Your task to perform on an android device: turn on bluetooth scan Image 0: 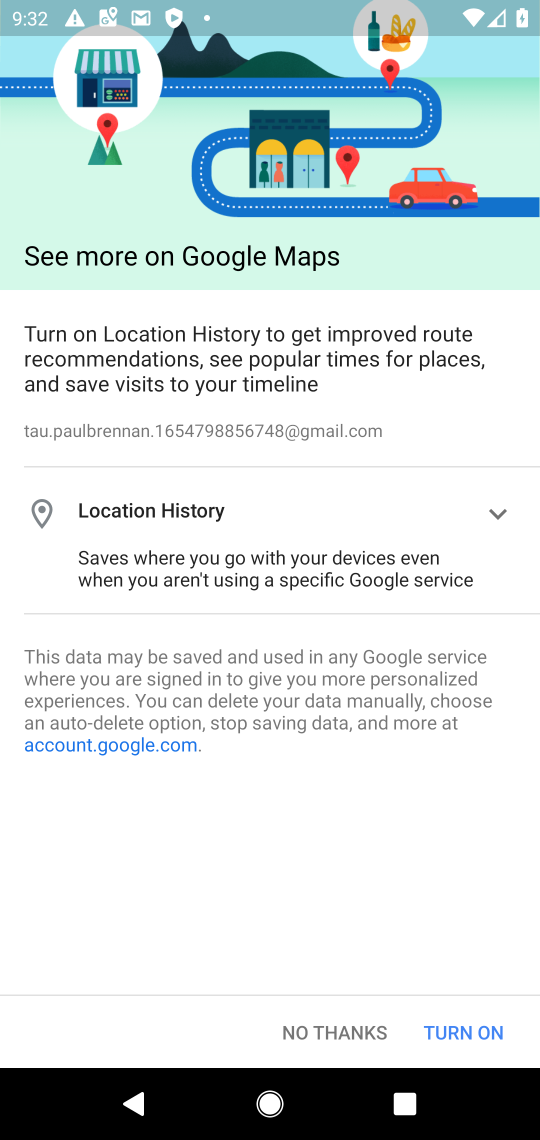
Step 0: click (312, 1032)
Your task to perform on an android device: turn on bluetooth scan Image 1: 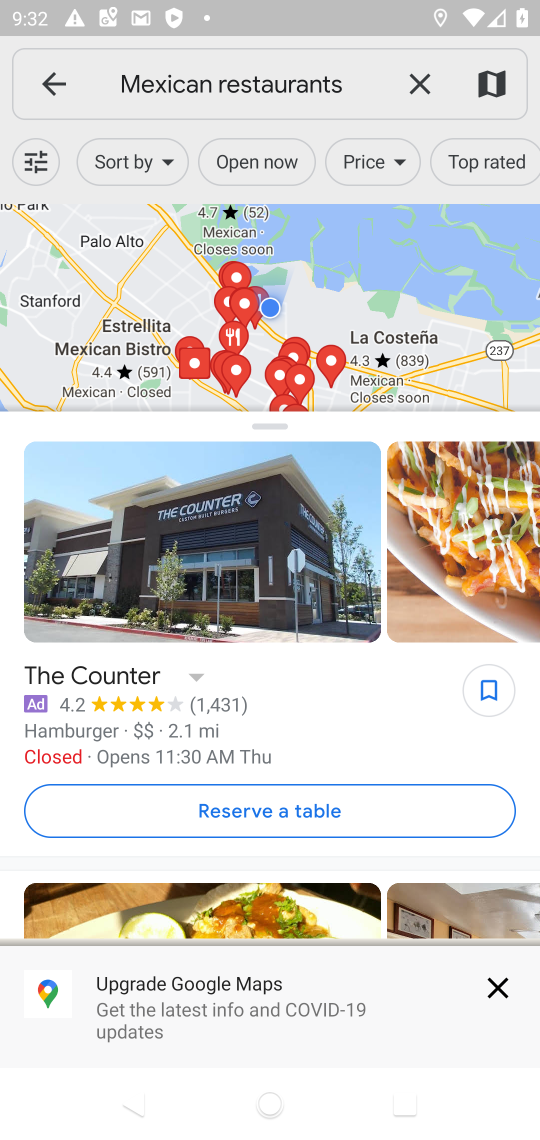
Step 1: press home button
Your task to perform on an android device: turn on bluetooth scan Image 2: 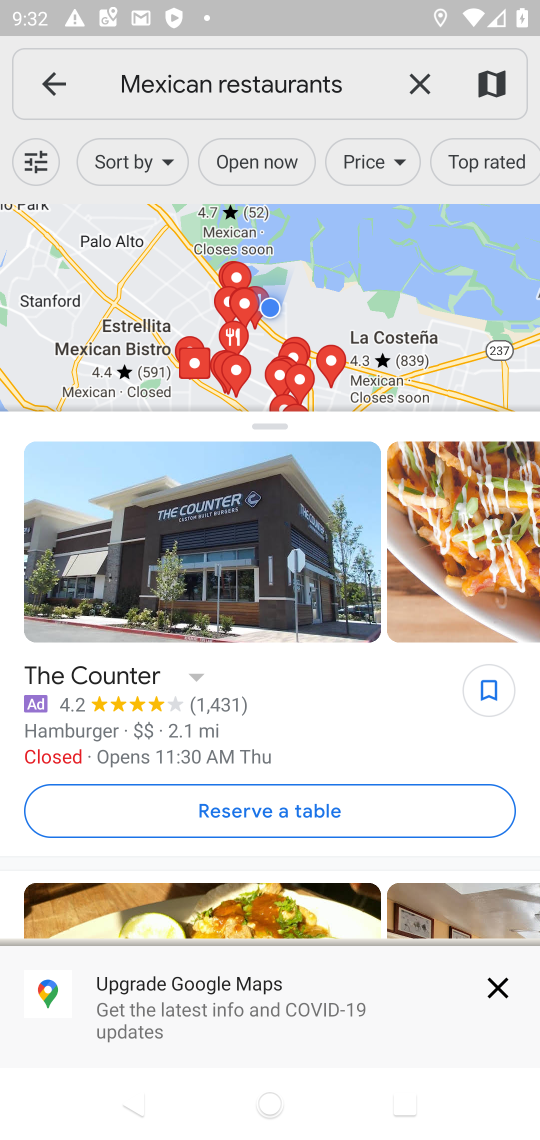
Step 2: press home button
Your task to perform on an android device: turn on bluetooth scan Image 3: 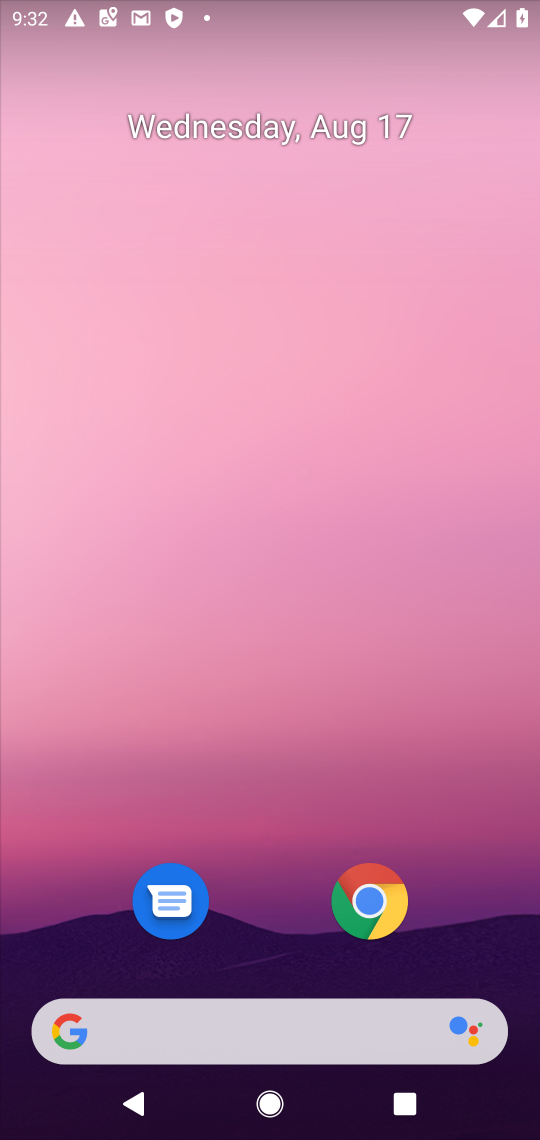
Step 3: drag from (259, 946) to (436, 407)
Your task to perform on an android device: turn on bluetooth scan Image 4: 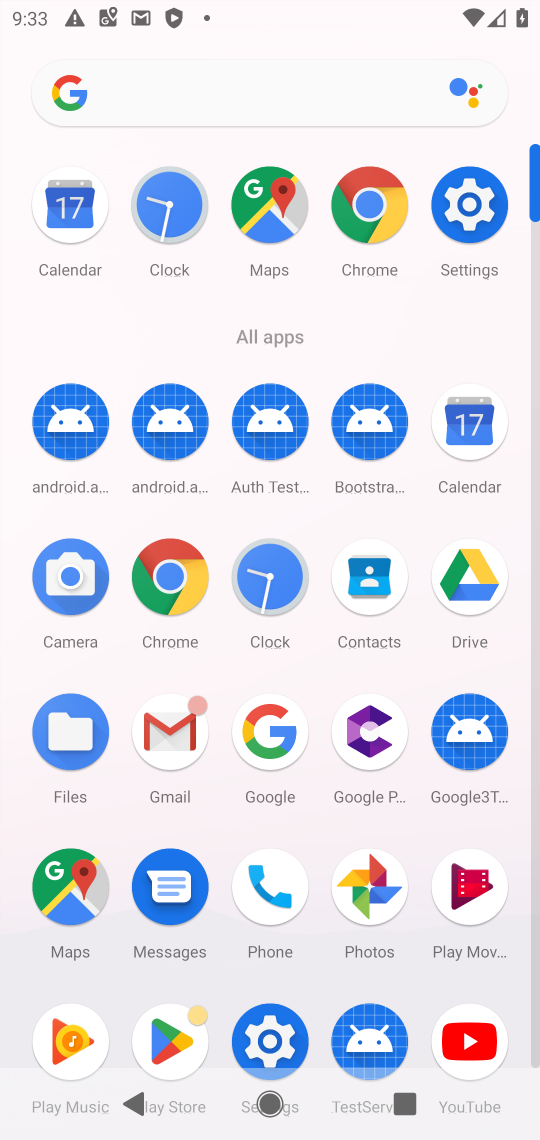
Step 4: click (265, 1034)
Your task to perform on an android device: turn on bluetooth scan Image 5: 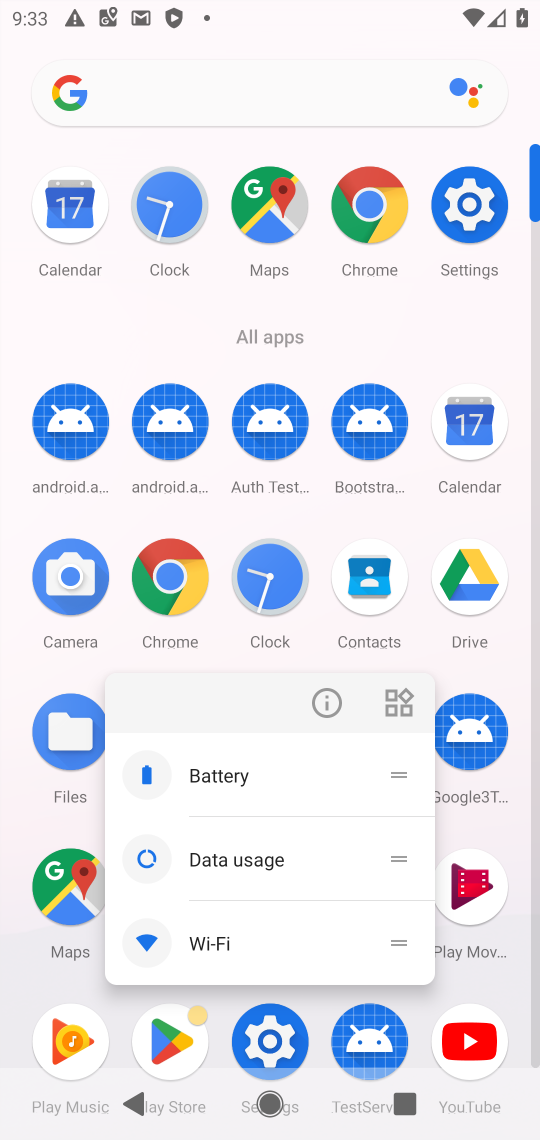
Step 5: click (268, 1035)
Your task to perform on an android device: turn on bluetooth scan Image 6: 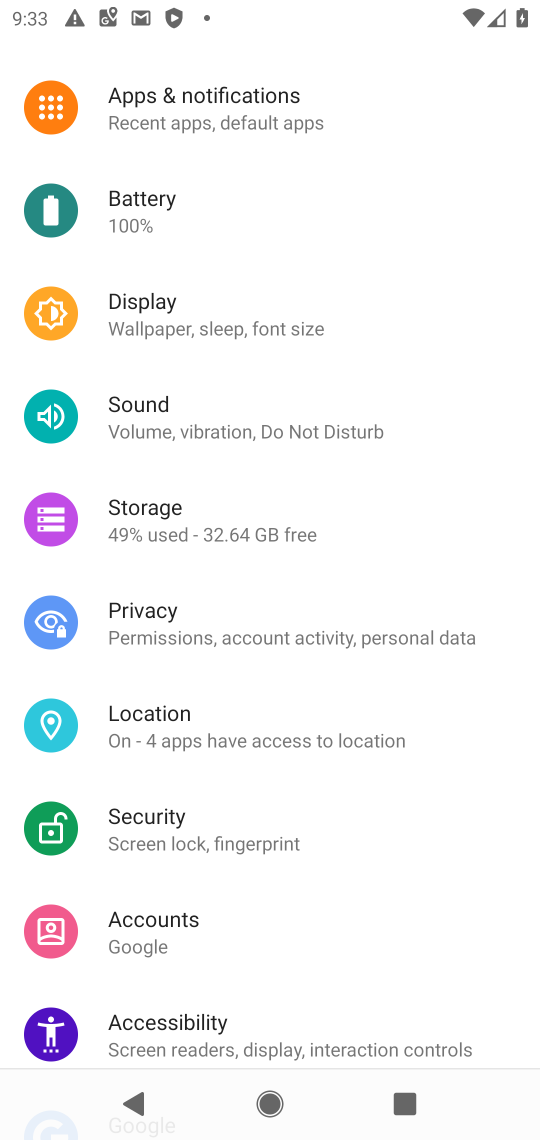
Step 6: click (159, 719)
Your task to perform on an android device: turn on bluetooth scan Image 7: 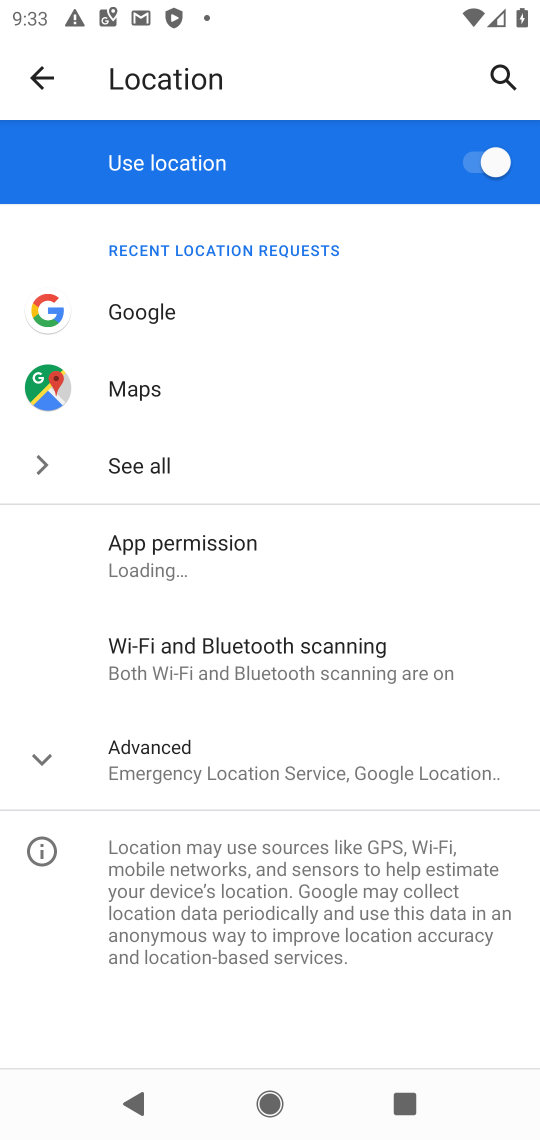
Step 7: click (282, 664)
Your task to perform on an android device: turn on bluetooth scan Image 8: 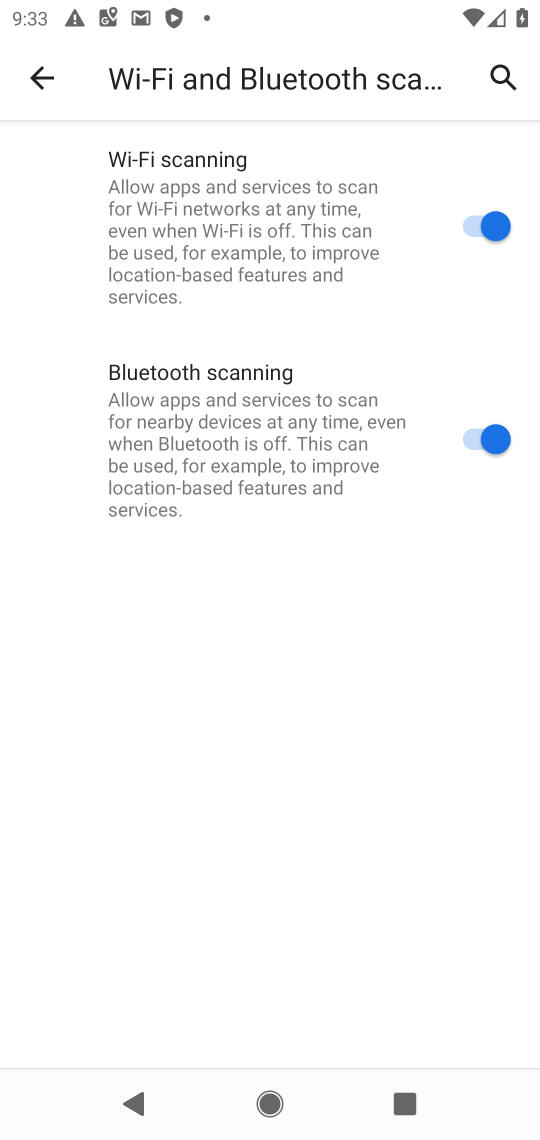
Step 8: task complete